Your task to perform on an android device: install app "Reddit" Image 0: 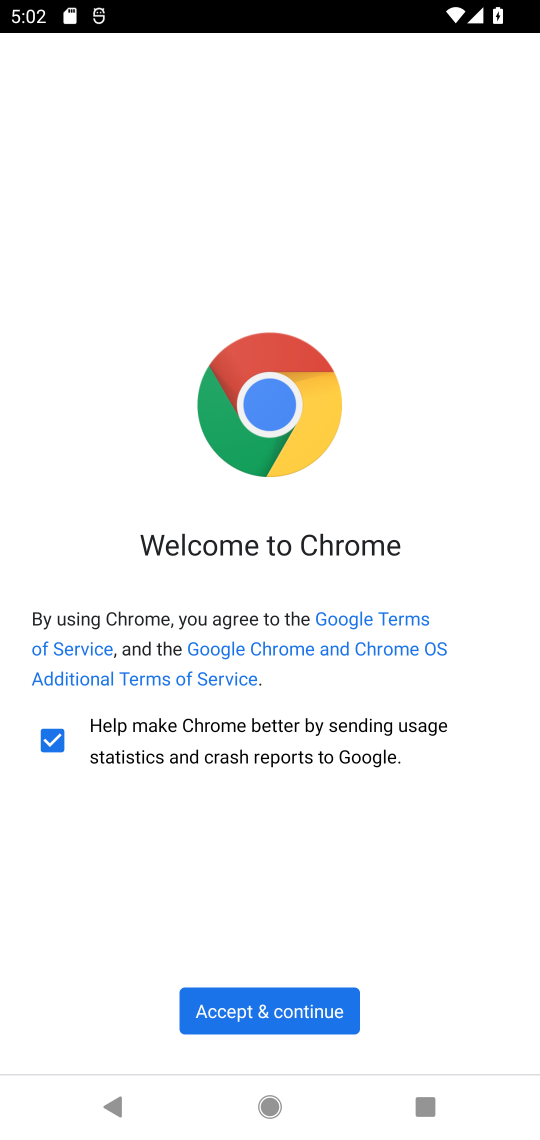
Step 0: press enter
Your task to perform on an android device: install app "Reddit" Image 1: 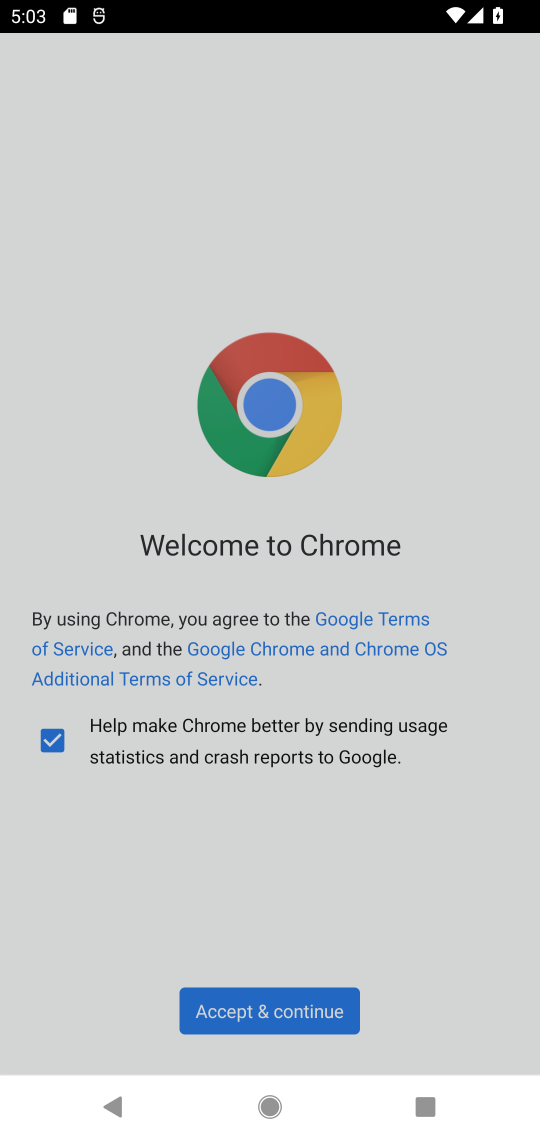
Step 1: press home button
Your task to perform on an android device: install app "Reddit" Image 2: 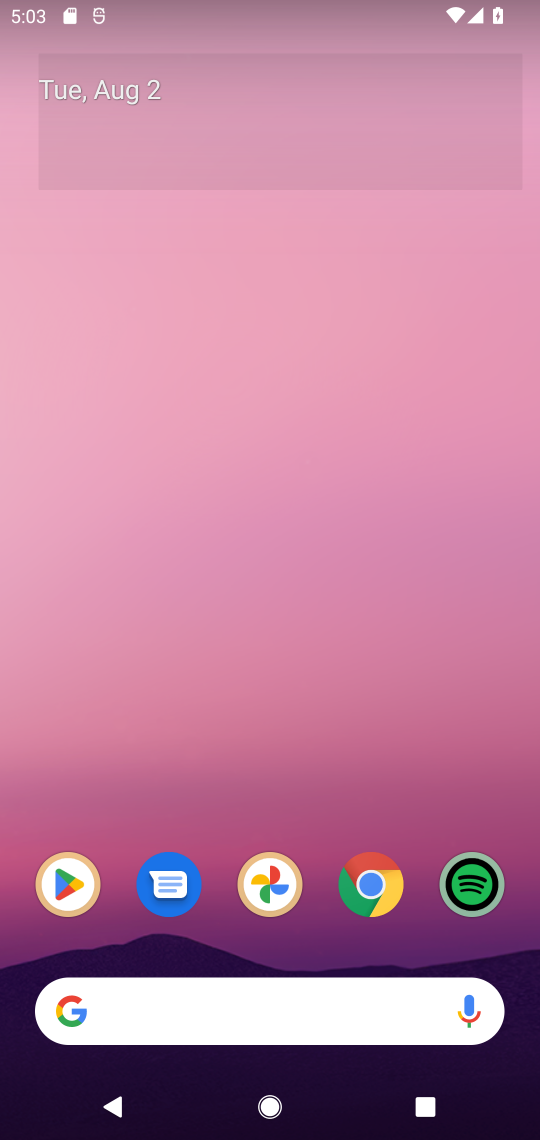
Step 2: drag from (292, 804) to (344, 64)
Your task to perform on an android device: install app "Reddit" Image 3: 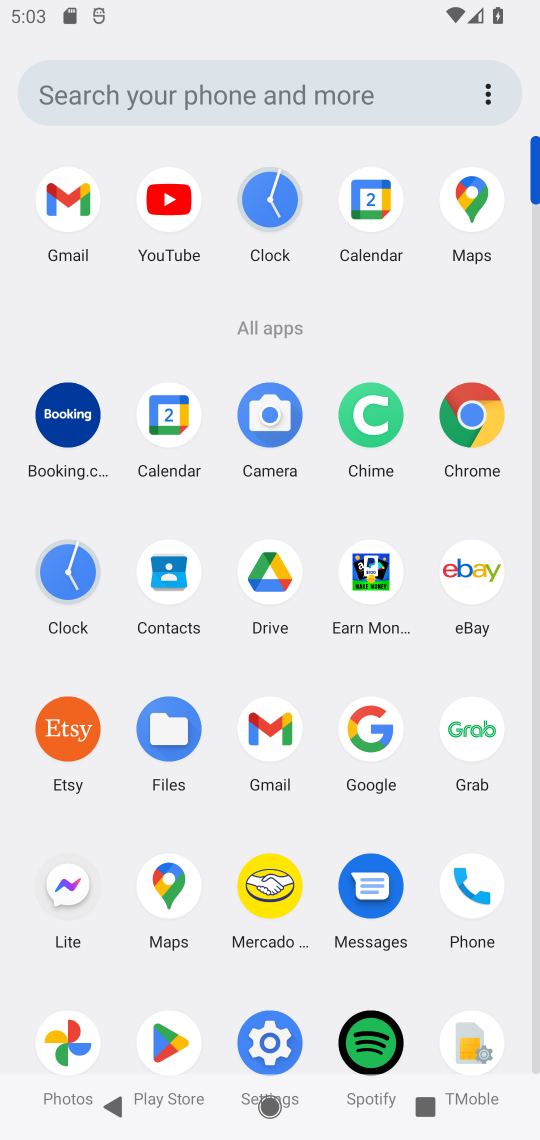
Step 3: click (169, 1050)
Your task to perform on an android device: install app "Reddit" Image 4: 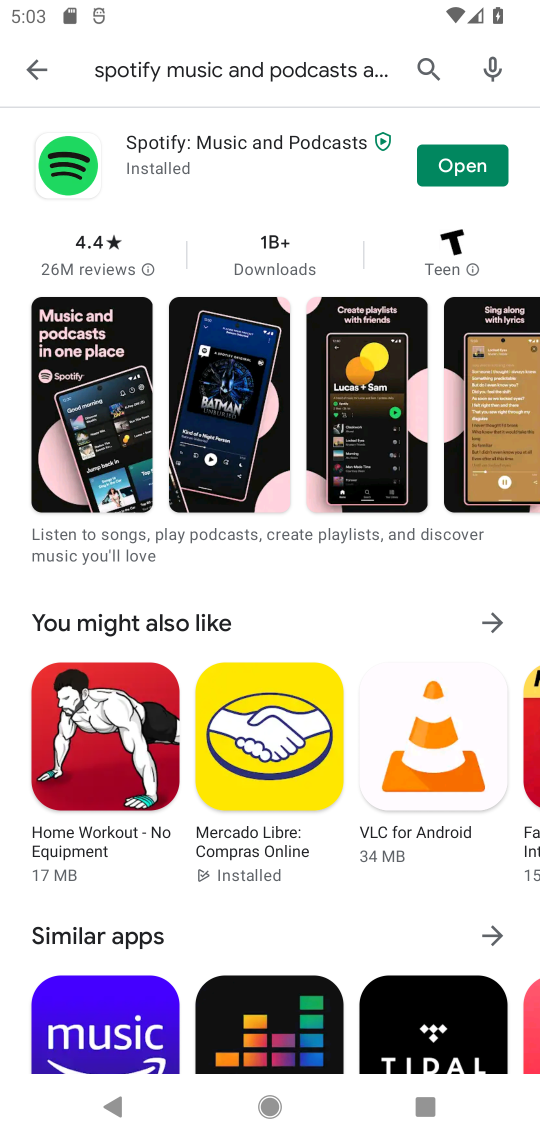
Step 4: click (43, 68)
Your task to perform on an android device: install app "Reddit" Image 5: 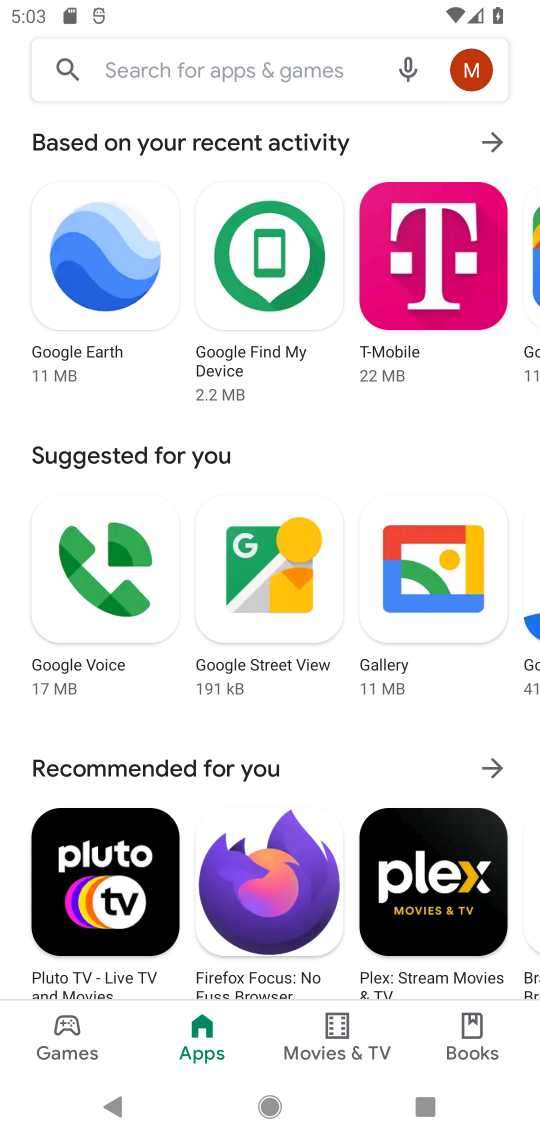
Step 5: click (146, 53)
Your task to perform on an android device: install app "Reddit" Image 6: 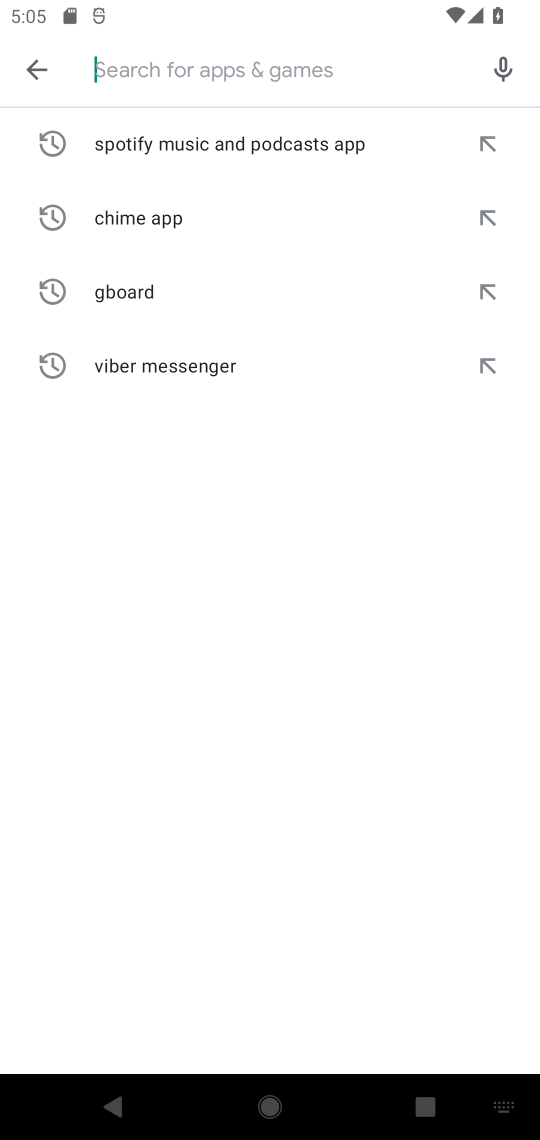
Step 6: type "Reddit"
Your task to perform on an android device: install app "Reddit" Image 7: 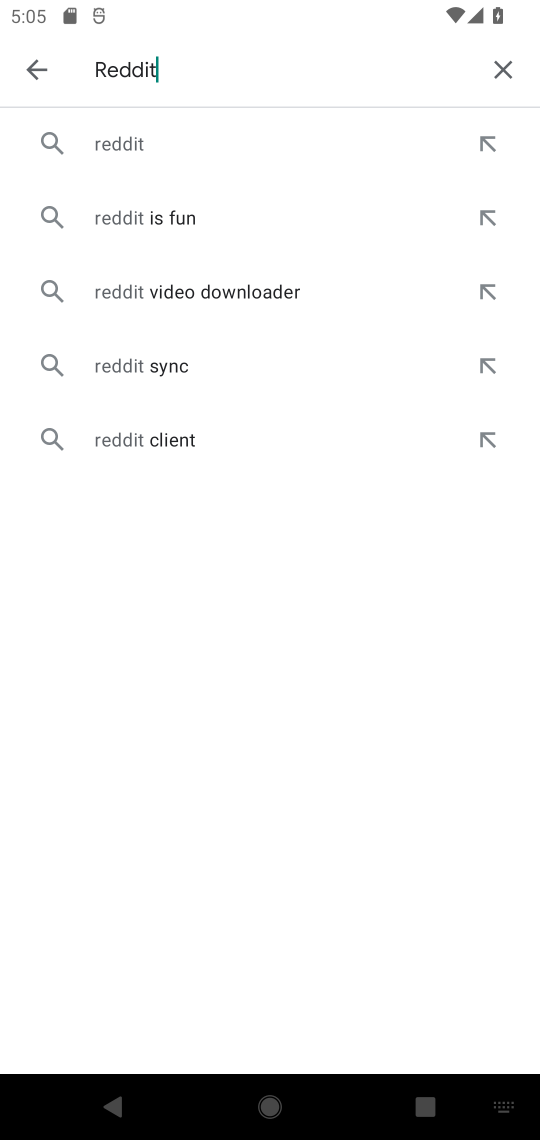
Step 7: click (108, 148)
Your task to perform on an android device: install app "Reddit" Image 8: 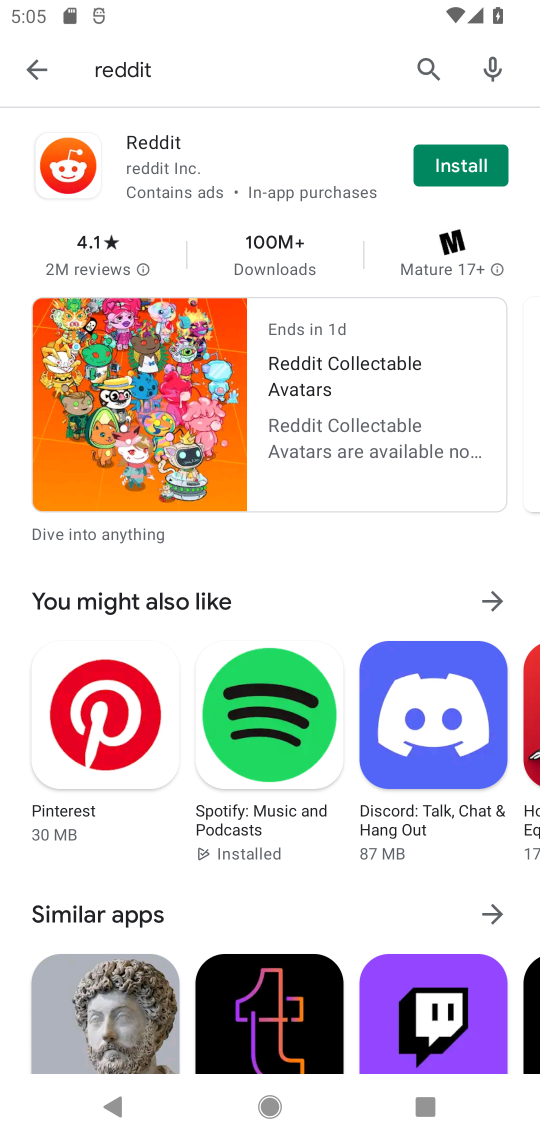
Step 8: click (485, 153)
Your task to perform on an android device: install app "Reddit" Image 9: 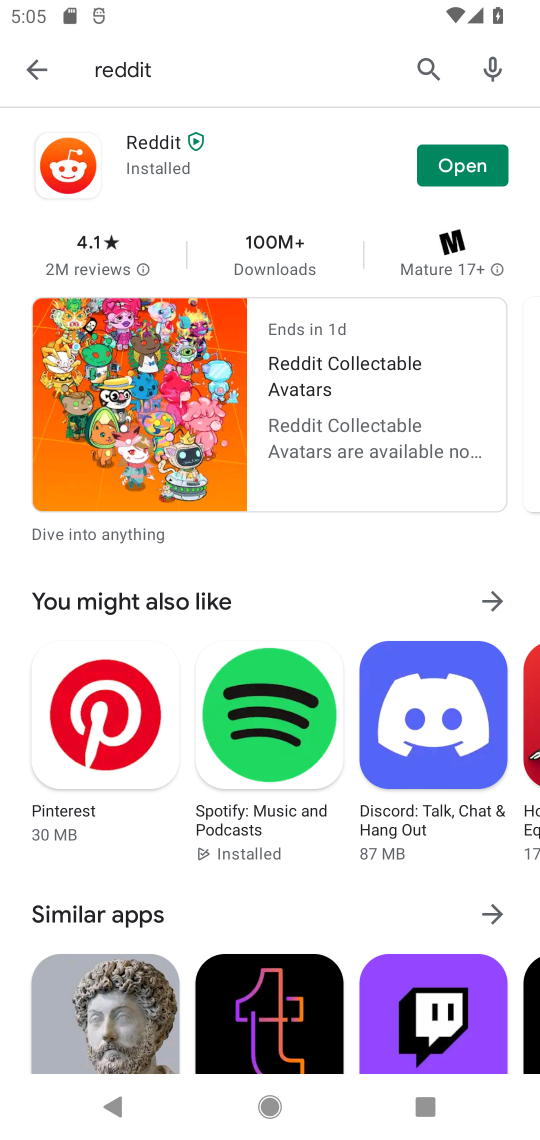
Step 9: task complete